Your task to perform on an android device: set the stopwatch Image 0: 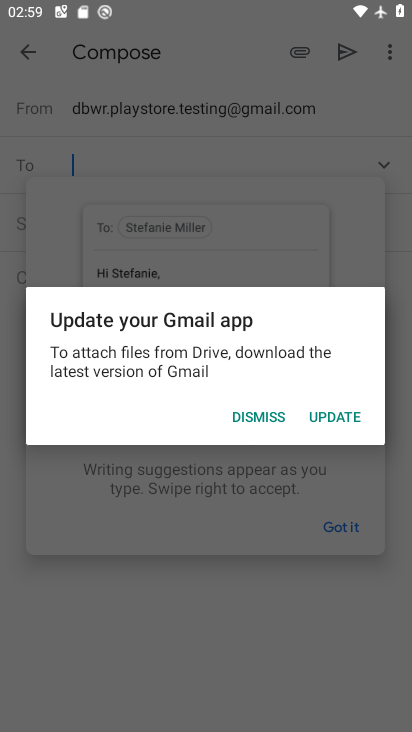
Step 0: press back button
Your task to perform on an android device: set the stopwatch Image 1: 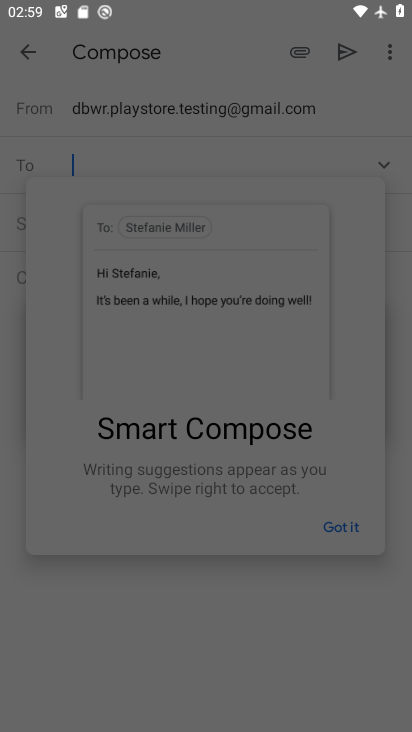
Step 1: press home button
Your task to perform on an android device: set the stopwatch Image 2: 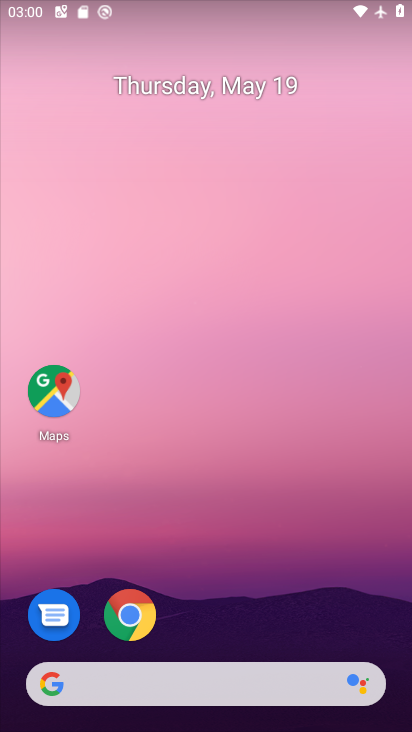
Step 2: drag from (216, 518) to (209, 0)
Your task to perform on an android device: set the stopwatch Image 3: 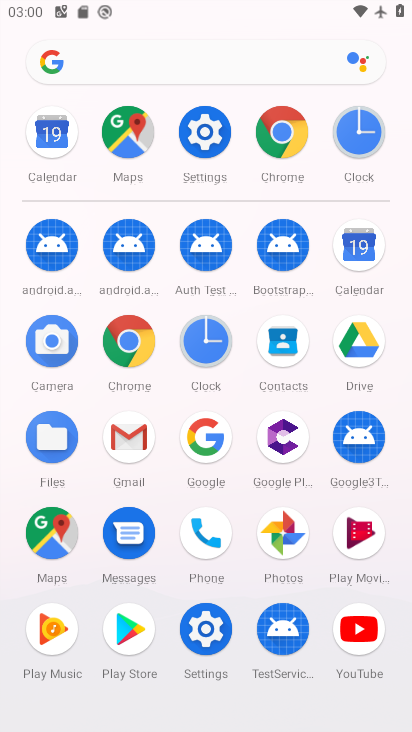
Step 3: drag from (13, 545) to (27, 225)
Your task to perform on an android device: set the stopwatch Image 4: 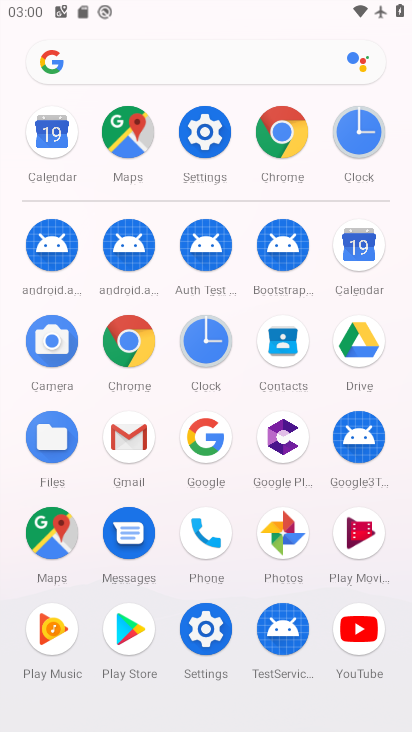
Step 4: click (362, 125)
Your task to perform on an android device: set the stopwatch Image 5: 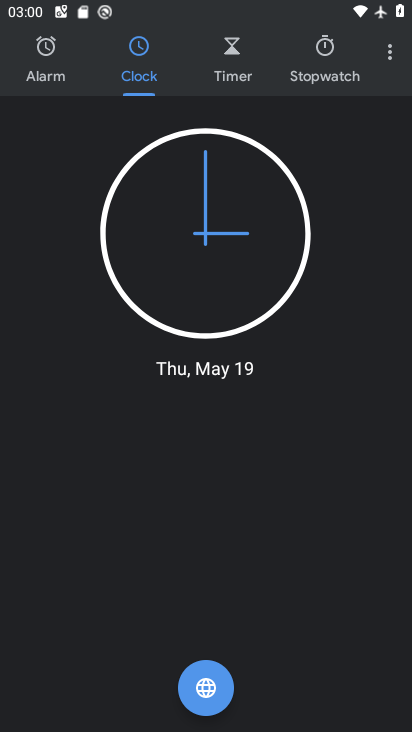
Step 5: click (333, 56)
Your task to perform on an android device: set the stopwatch Image 6: 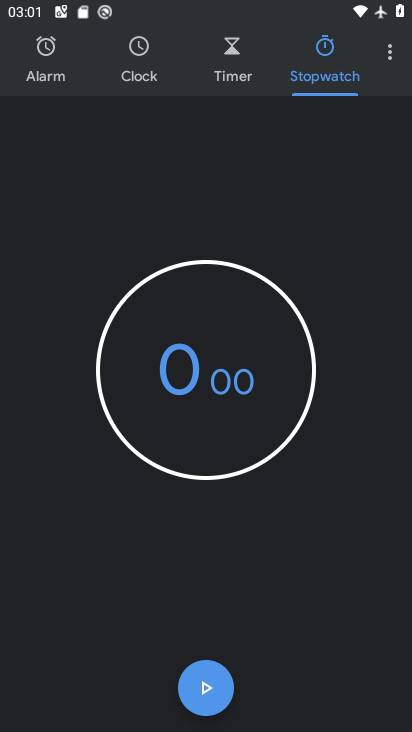
Step 6: click (208, 673)
Your task to perform on an android device: set the stopwatch Image 7: 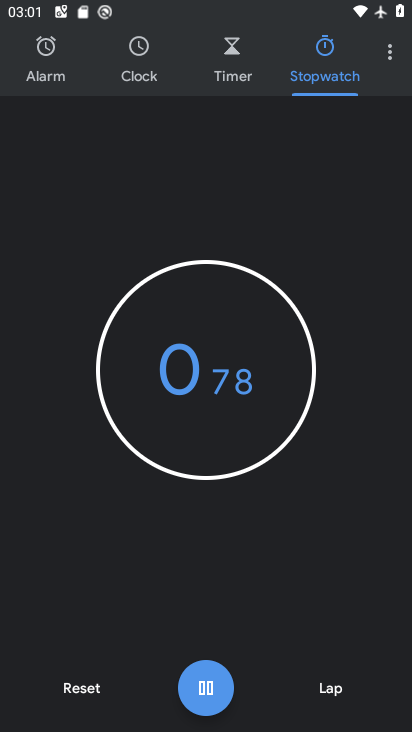
Step 7: task complete